Your task to perform on an android device: Go to Google Image 0: 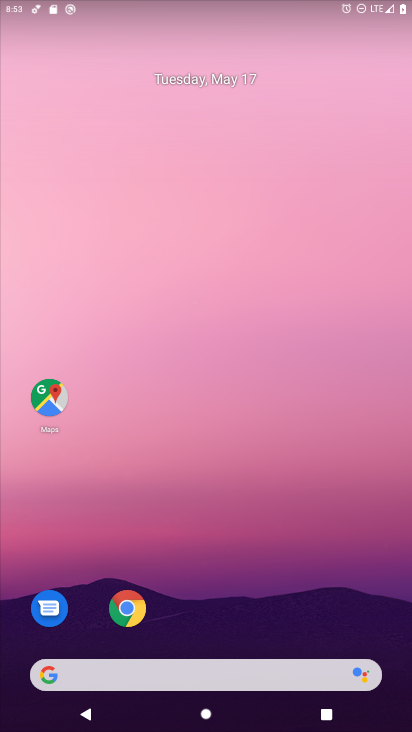
Step 0: click (201, 679)
Your task to perform on an android device: Go to Google Image 1: 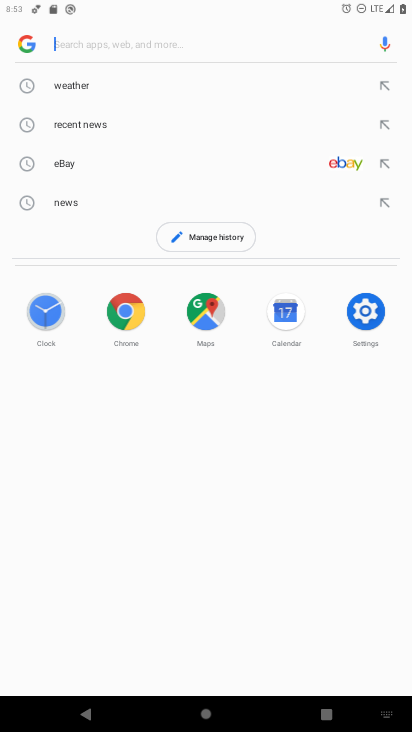
Step 1: click (26, 40)
Your task to perform on an android device: Go to Google Image 2: 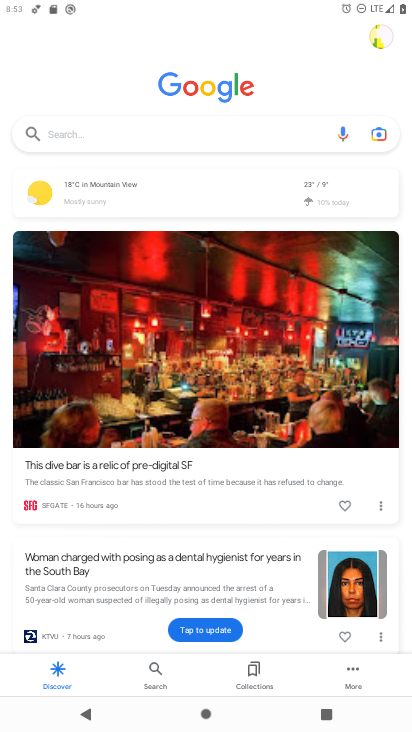
Step 2: task complete